Your task to perform on an android device: see sites visited before in the chrome app Image 0: 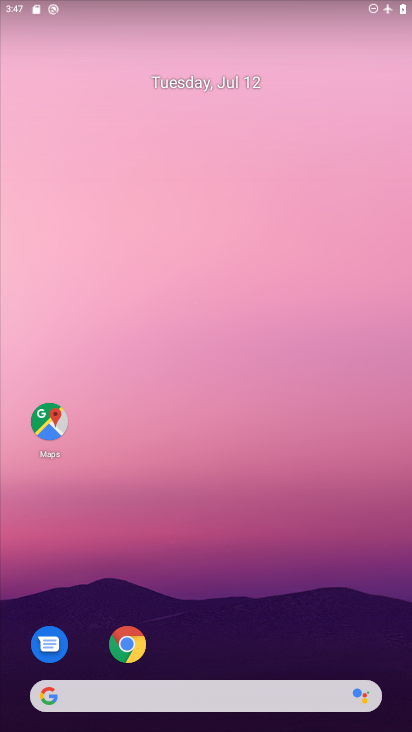
Step 0: drag from (255, 555) to (192, 75)
Your task to perform on an android device: see sites visited before in the chrome app Image 1: 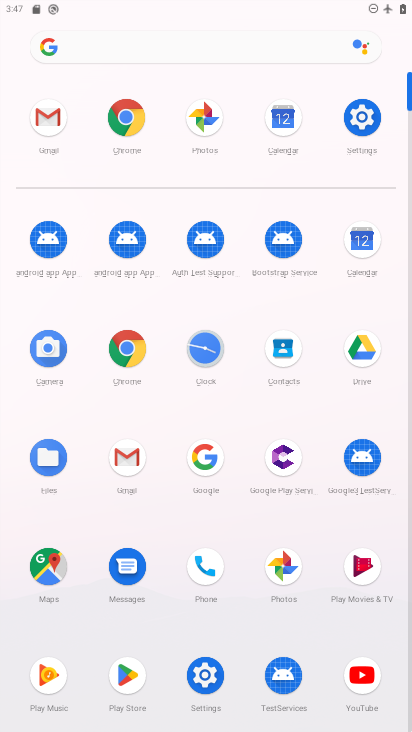
Step 1: click (120, 348)
Your task to perform on an android device: see sites visited before in the chrome app Image 2: 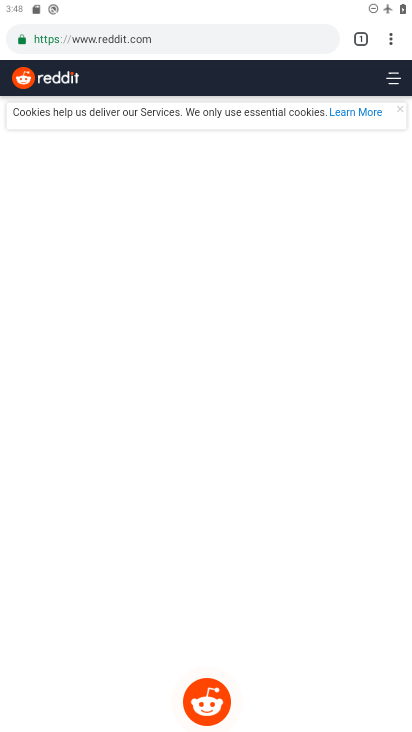
Step 2: task complete